Your task to perform on an android device: Go to Android settings Image 0: 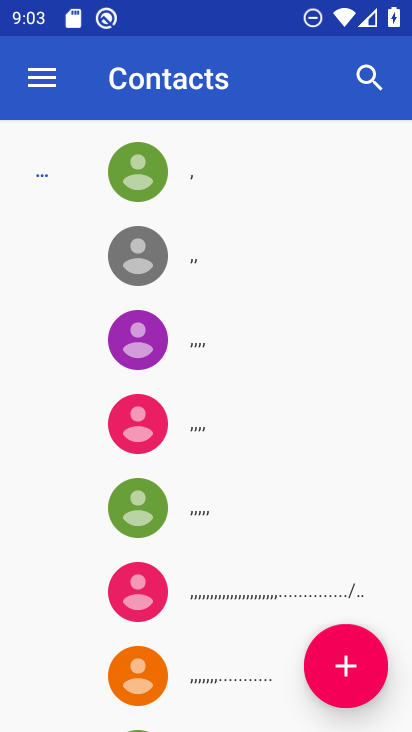
Step 0: press home button
Your task to perform on an android device: Go to Android settings Image 1: 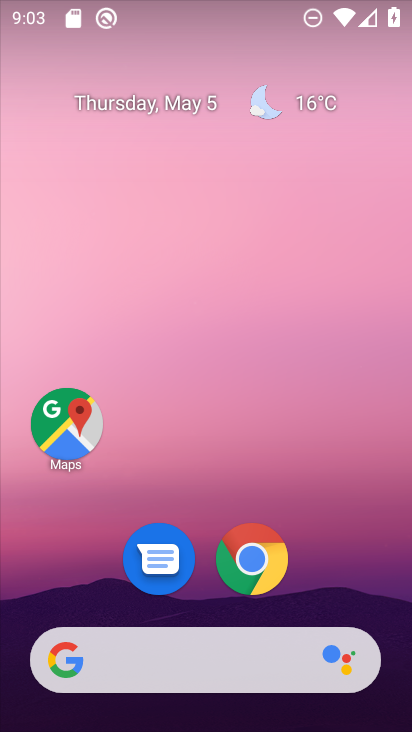
Step 1: drag from (365, 591) to (349, 17)
Your task to perform on an android device: Go to Android settings Image 2: 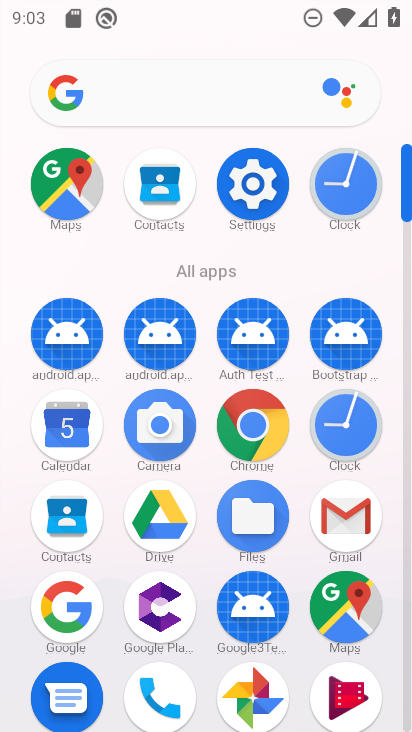
Step 2: click (247, 185)
Your task to perform on an android device: Go to Android settings Image 3: 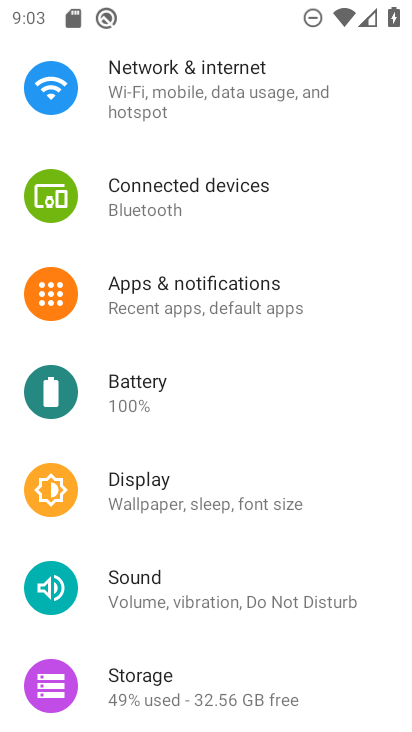
Step 3: task complete